Your task to perform on an android device: change the clock display to digital Image 0: 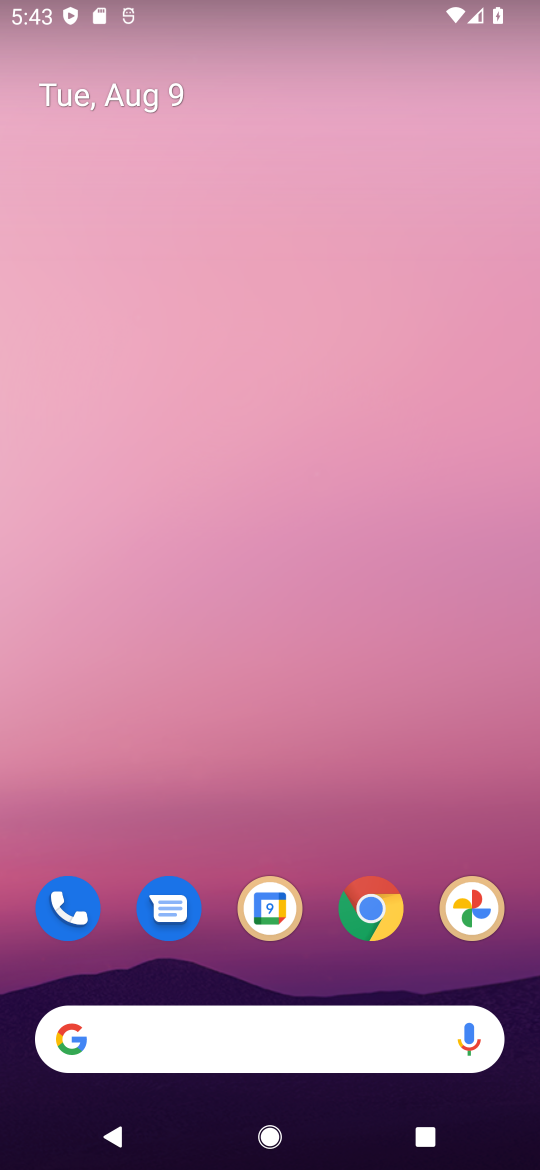
Step 0: drag from (344, 824) to (369, 0)
Your task to perform on an android device: change the clock display to digital Image 1: 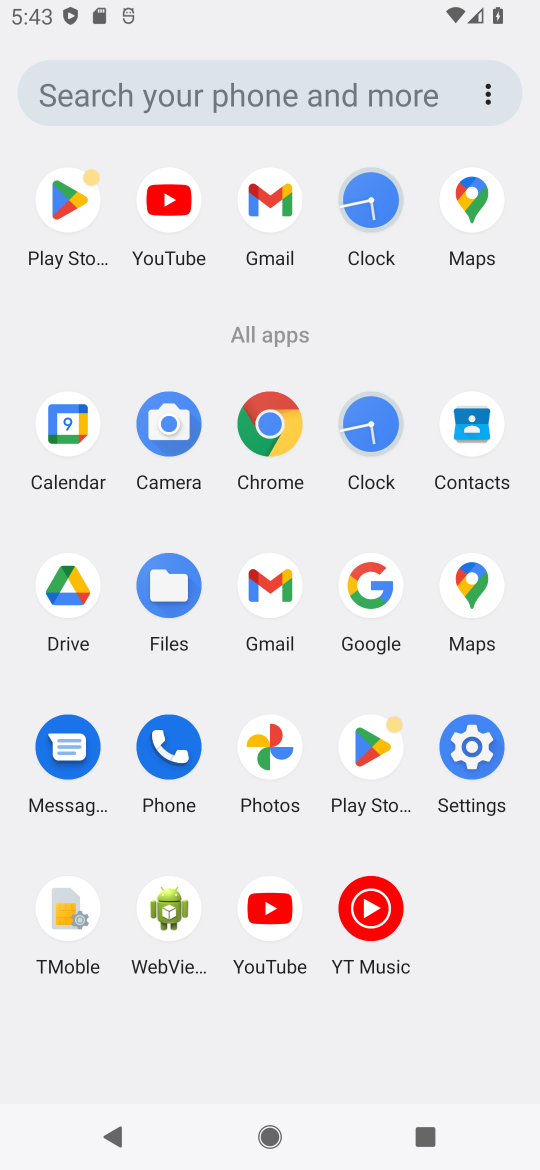
Step 1: click (364, 416)
Your task to perform on an android device: change the clock display to digital Image 2: 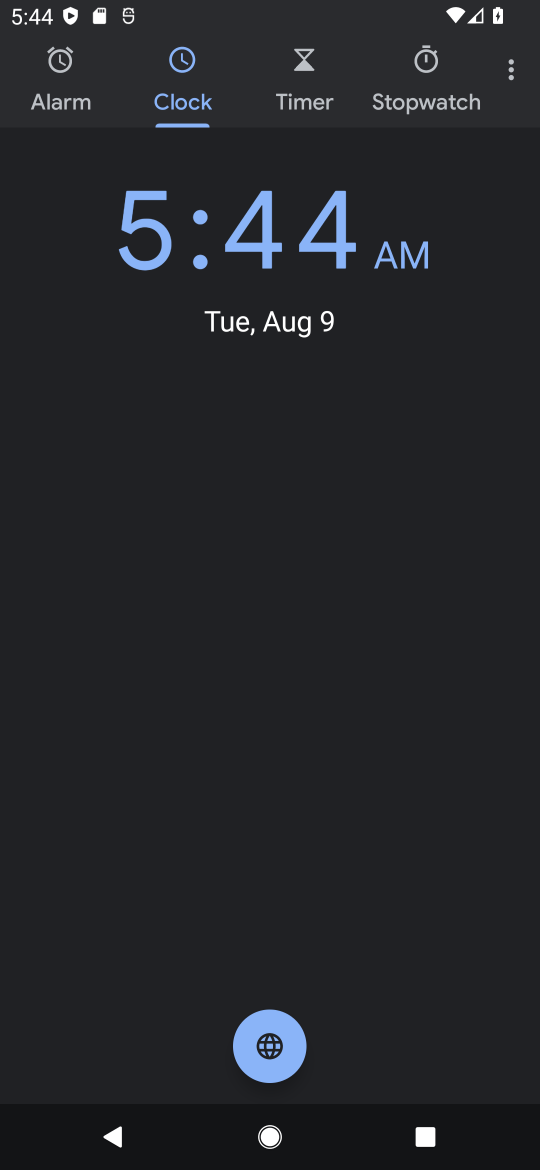
Step 2: task complete